Your task to perform on an android device: Open Wikipedia Image 0: 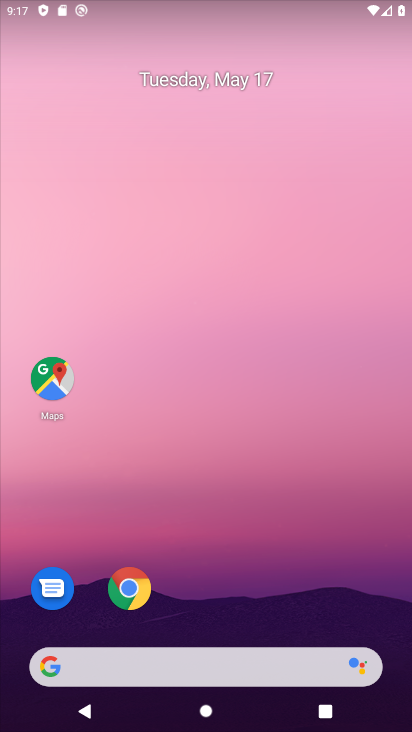
Step 0: click (147, 589)
Your task to perform on an android device: Open Wikipedia Image 1: 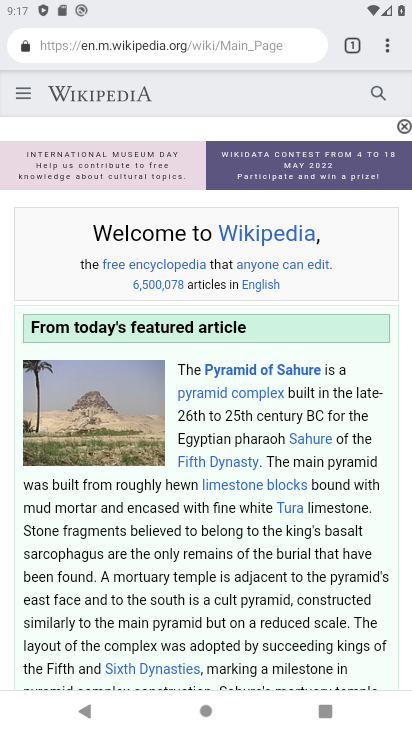
Step 1: task complete